Your task to perform on an android device: clear history in the chrome app Image 0: 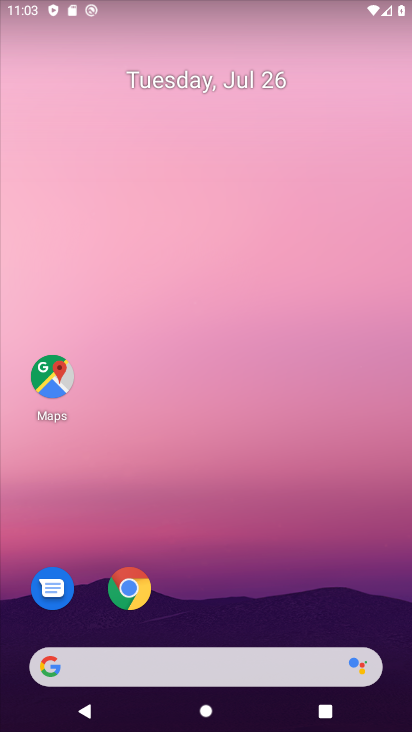
Step 0: click (124, 577)
Your task to perform on an android device: clear history in the chrome app Image 1: 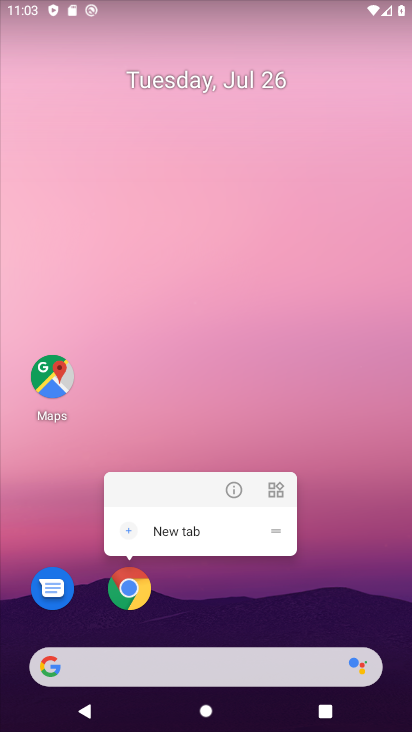
Step 1: click (125, 586)
Your task to perform on an android device: clear history in the chrome app Image 2: 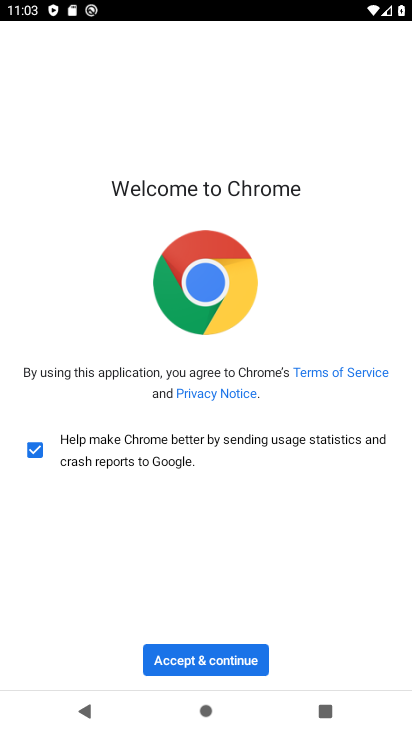
Step 2: click (175, 654)
Your task to perform on an android device: clear history in the chrome app Image 3: 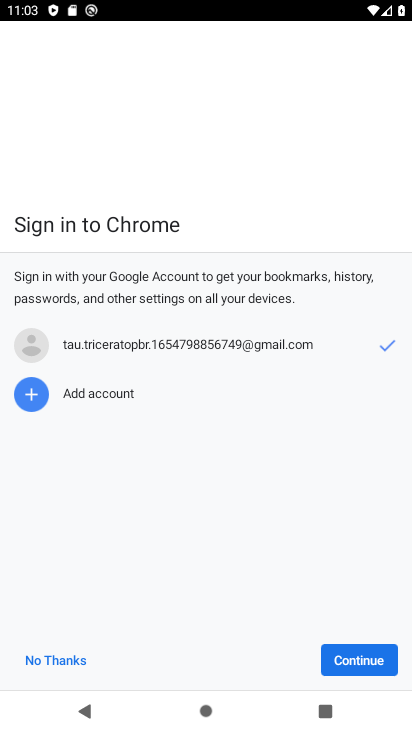
Step 3: click (368, 667)
Your task to perform on an android device: clear history in the chrome app Image 4: 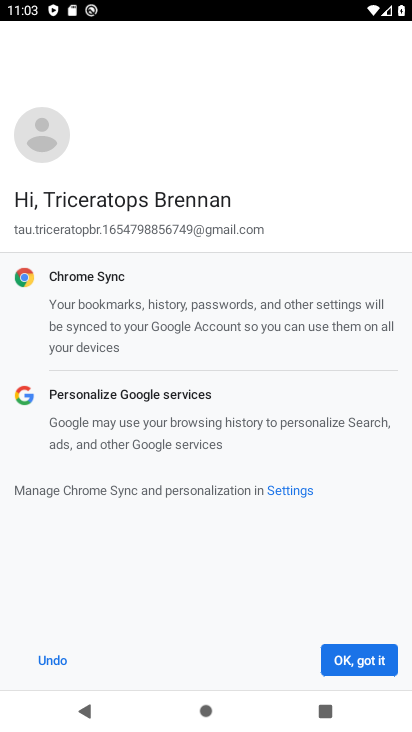
Step 4: click (368, 667)
Your task to perform on an android device: clear history in the chrome app Image 5: 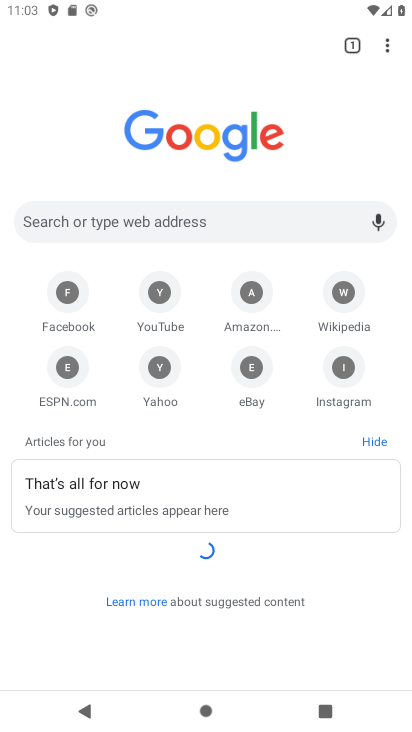
Step 5: click (384, 43)
Your task to perform on an android device: clear history in the chrome app Image 6: 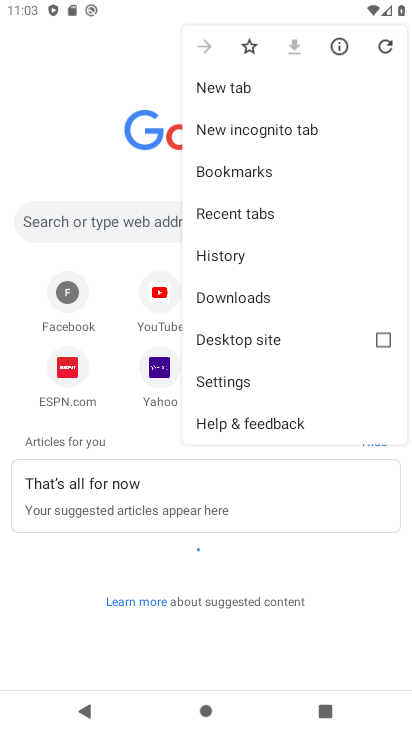
Step 6: click (223, 254)
Your task to perform on an android device: clear history in the chrome app Image 7: 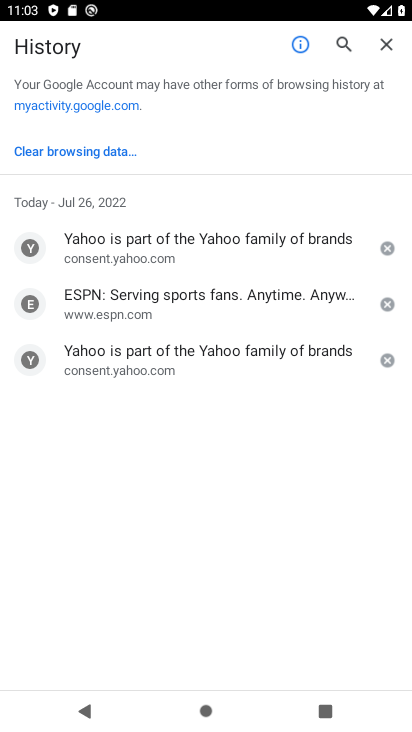
Step 7: click (100, 156)
Your task to perform on an android device: clear history in the chrome app Image 8: 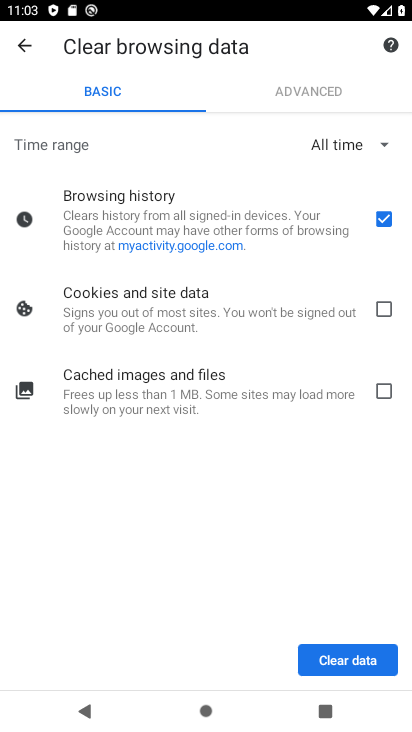
Step 8: click (376, 311)
Your task to perform on an android device: clear history in the chrome app Image 9: 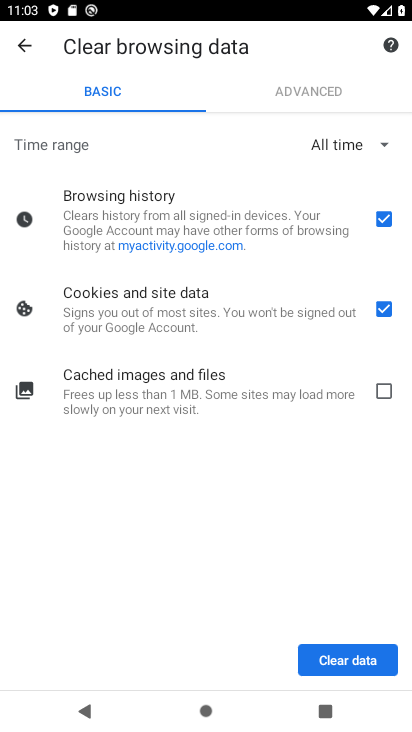
Step 9: click (378, 394)
Your task to perform on an android device: clear history in the chrome app Image 10: 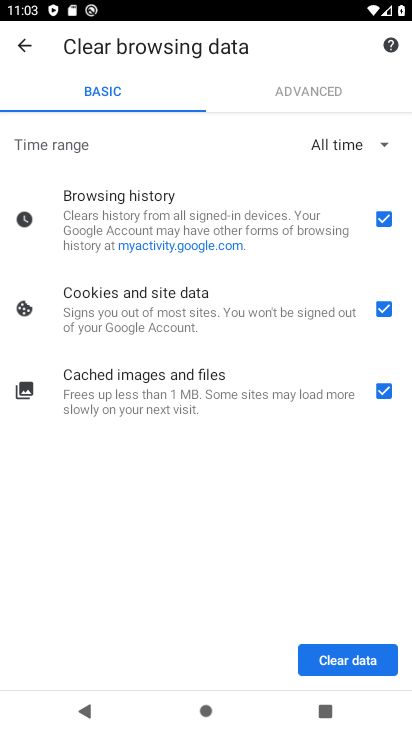
Step 10: click (336, 658)
Your task to perform on an android device: clear history in the chrome app Image 11: 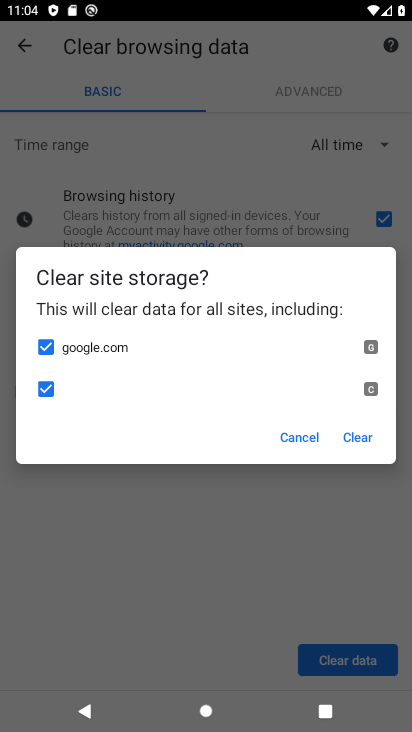
Step 11: click (357, 431)
Your task to perform on an android device: clear history in the chrome app Image 12: 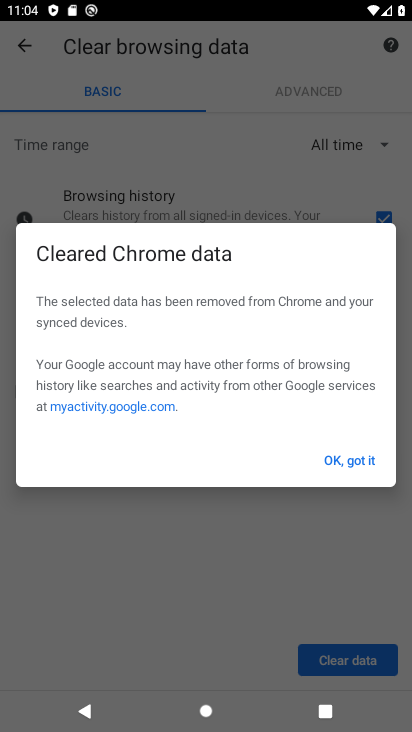
Step 12: click (337, 462)
Your task to perform on an android device: clear history in the chrome app Image 13: 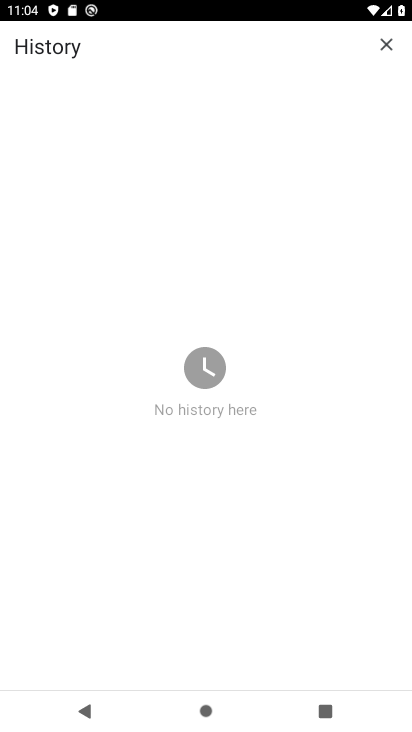
Step 13: task complete